Your task to perform on an android device: Open Yahoo.com Image 0: 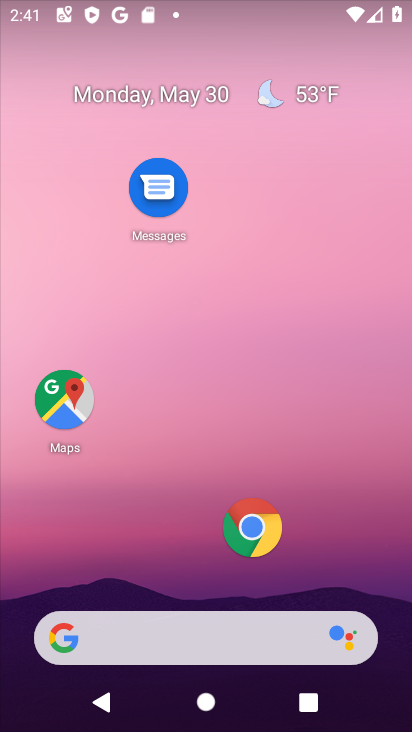
Step 0: drag from (177, 587) to (224, 169)
Your task to perform on an android device: Open Yahoo.com Image 1: 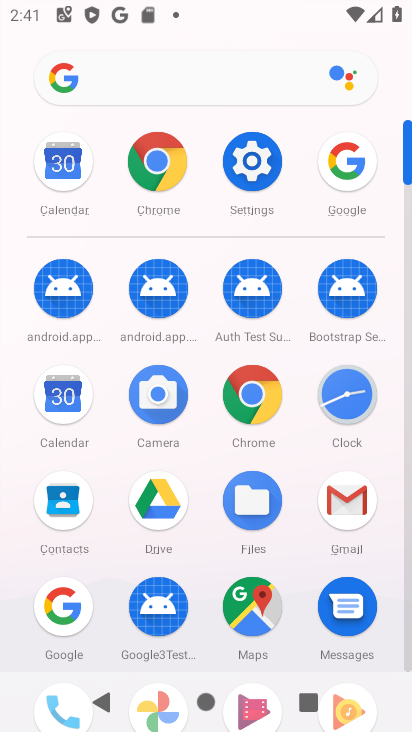
Step 1: click (251, 421)
Your task to perform on an android device: Open Yahoo.com Image 2: 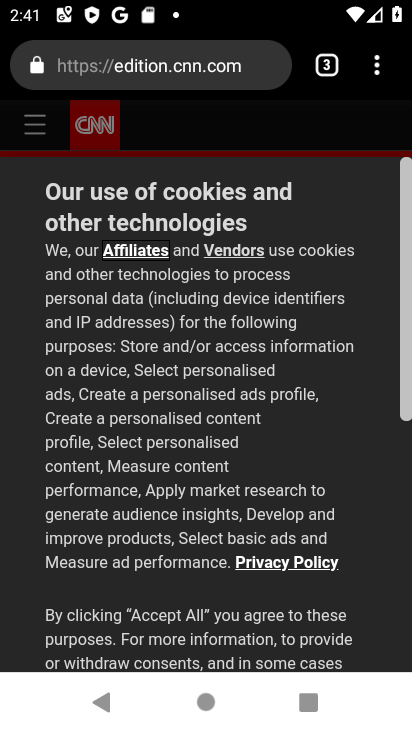
Step 2: click (377, 72)
Your task to perform on an android device: Open Yahoo.com Image 3: 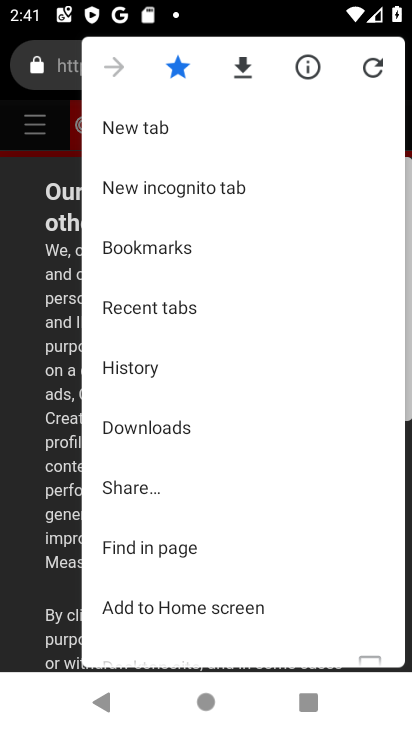
Step 3: click (194, 129)
Your task to perform on an android device: Open Yahoo.com Image 4: 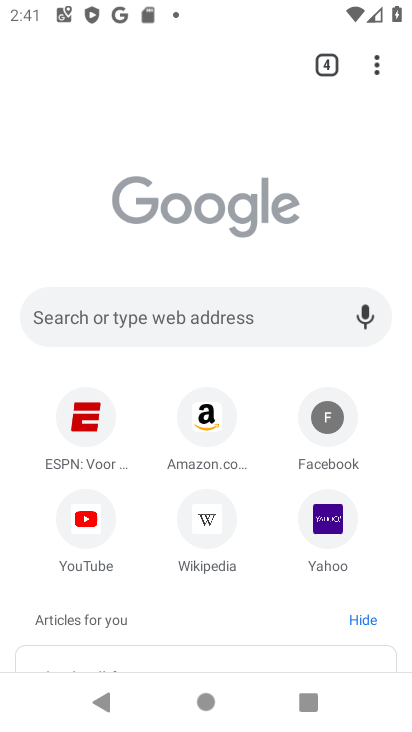
Step 4: click (331, 557)
Your task to perform on an android device: Open Yahoo.com Image 5: 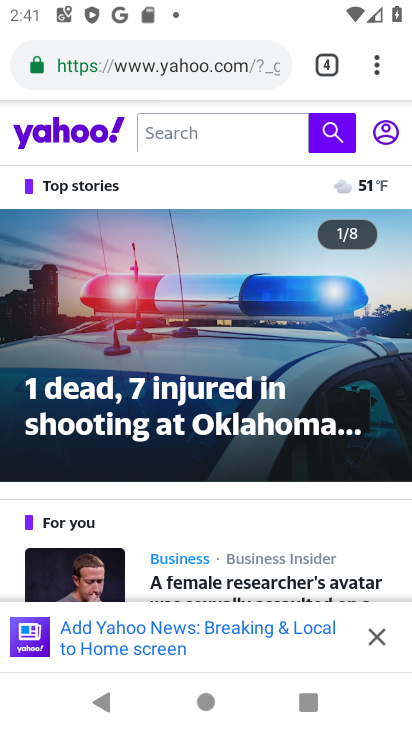
Step 5: task complete